Your task to perform on an android device: visit the assistant section in the google photos Image 0: 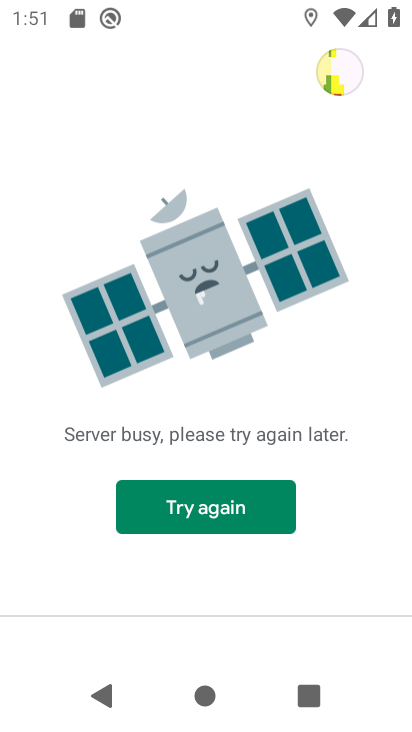
Step 0: press home button
Your task to perform on an android device: visit the assistant section in the google photos Image 1: 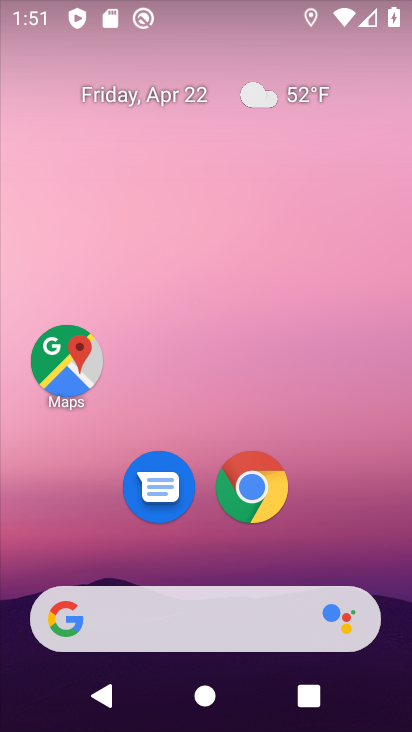
Step 1: drag from (197, 548) to (212, 83)
Your task to perform on an android device: visit the assistant section in the google photos Image 2: 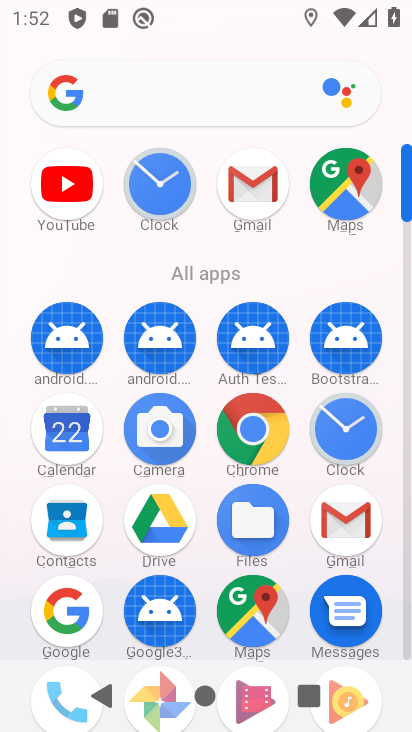
Step 2: drag from (206, 562) to (234, 153)
Your task to perform on an android device: visit the assistant section in the google photos Image 3: 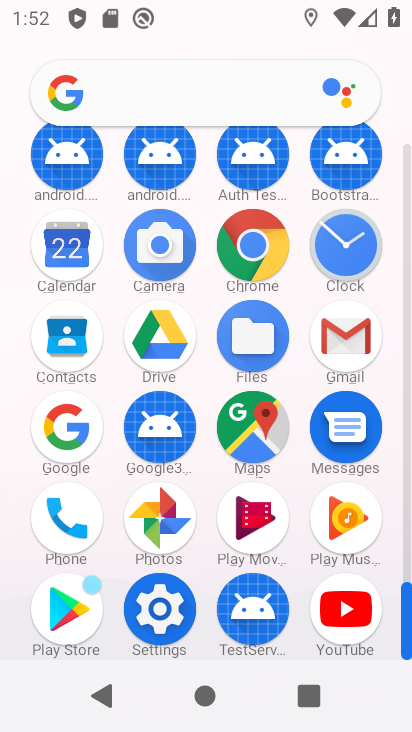
Step 3: click (155, 515)
Your task to perform on an android device: visit the assistant section in the google photos Image 4: 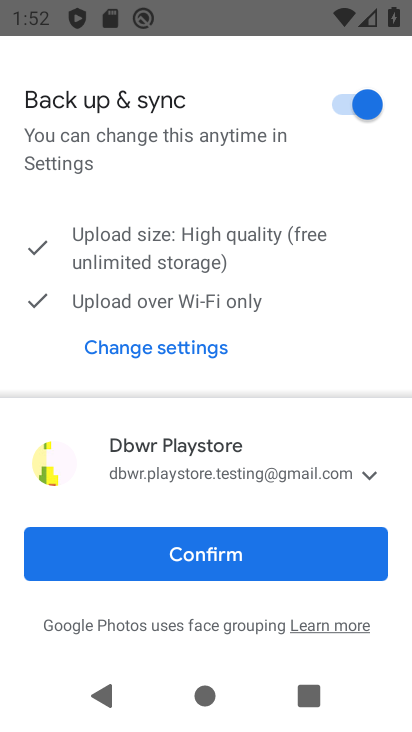
Step 4: click (193, 553)
Your task to perform on an android device: visit the assistant section in the google photos Image 5: 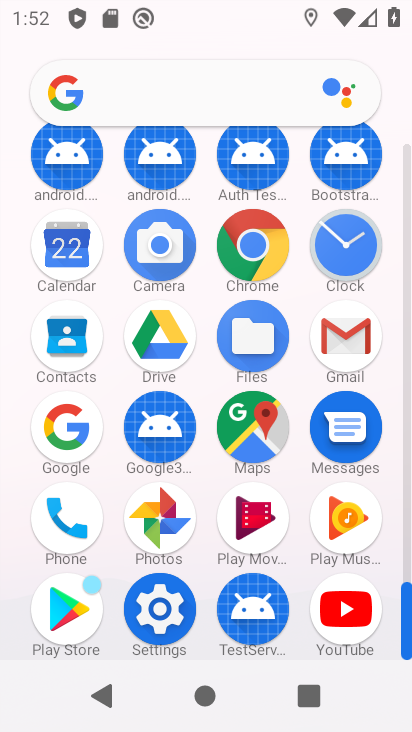
Step 5: click (169, 518)
Your task to perform on an android device: visit the assistant section in the google photos Image 6: 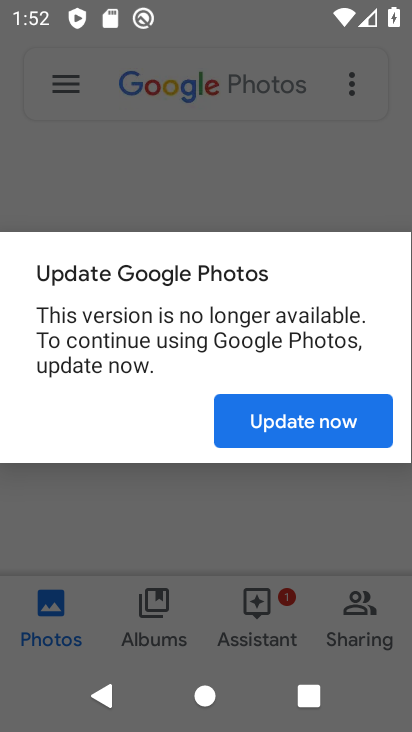
Step 6: click (285, 419)
Your task to perform on an android device: visit the assistant section in the google photos Image 7: 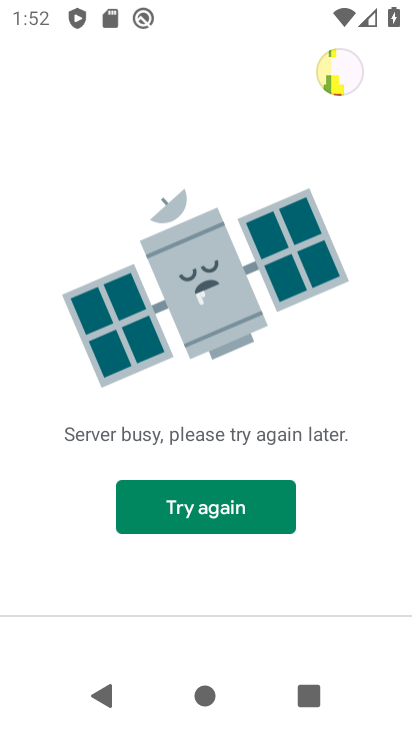
Step 7: press back button
Your task to perform on an android device: visit the assistant section in the google photos Image 8: 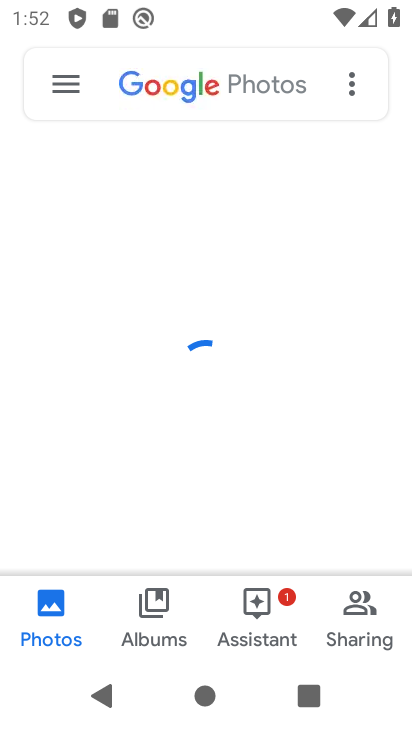
Step 8: click (261, 600)
Your task to perform on an android device: visit the assistant section in the google photos Image 9: 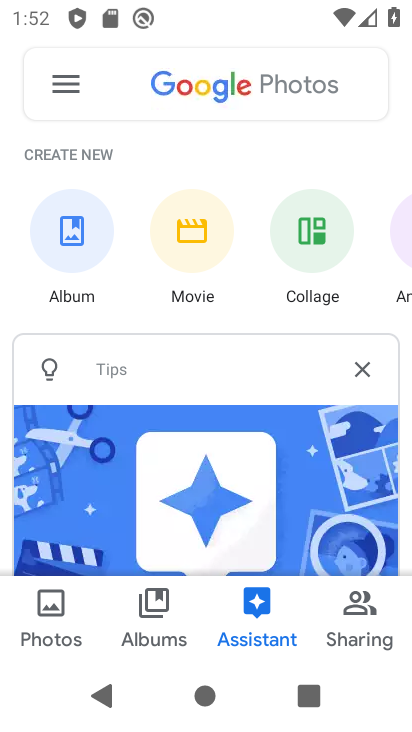
Step 9: task complete